Your task to perform on an android device: Search for the best rated phone case for the iPhone 8. Image 0: 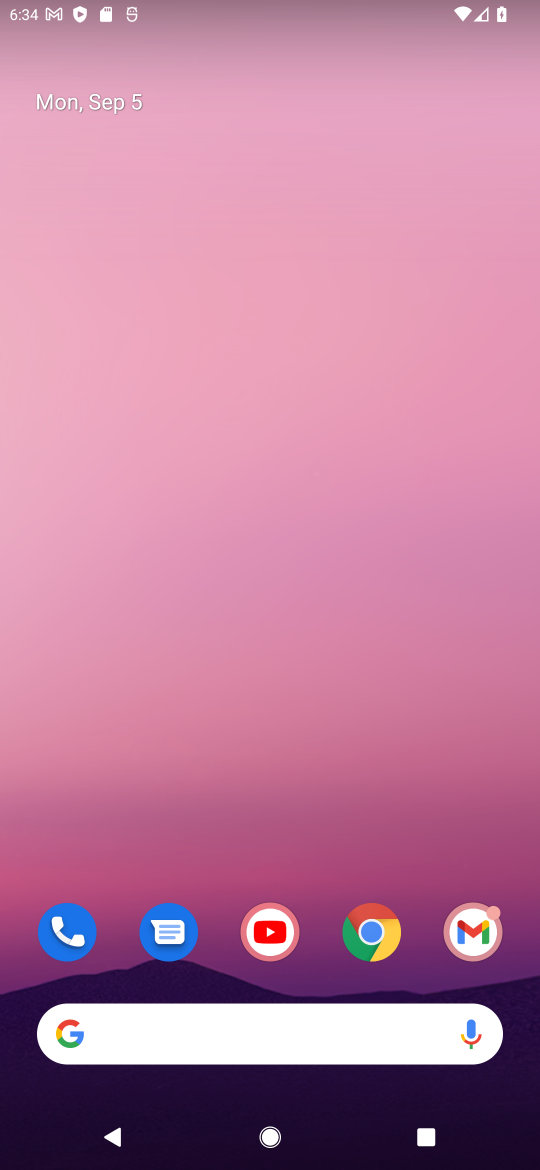
Step 0: drag from (223, 980) to (214, 171)
Your task to perform on an android device: Search for the best rated phone case for the iPhone 8. Image 1: 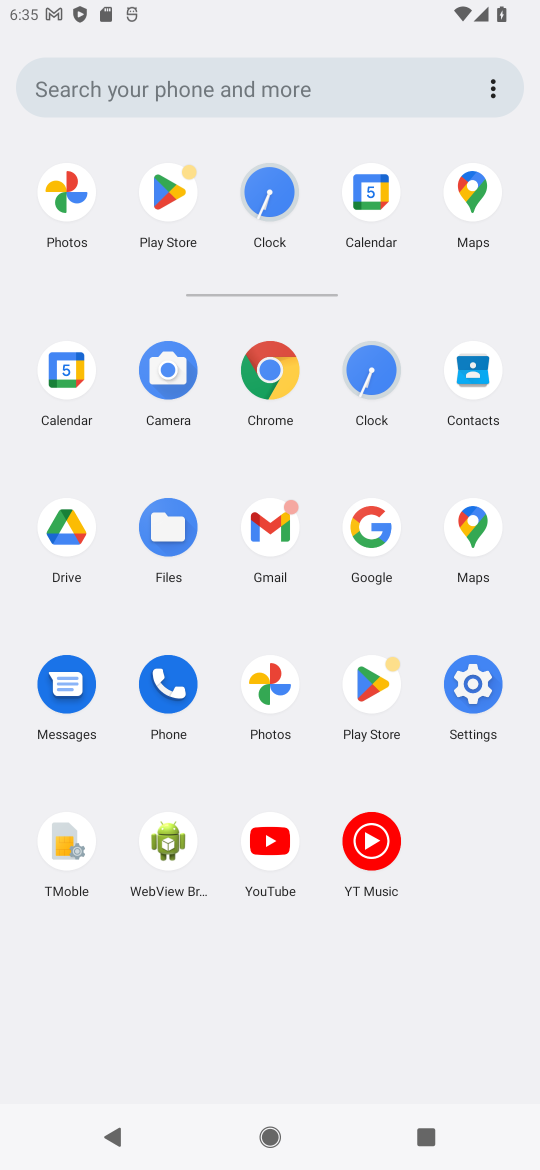
Step 1: click (271, 364)
Your task to perform on an android device: Search for the best rated phone case for the iPhone 8. Image 2: 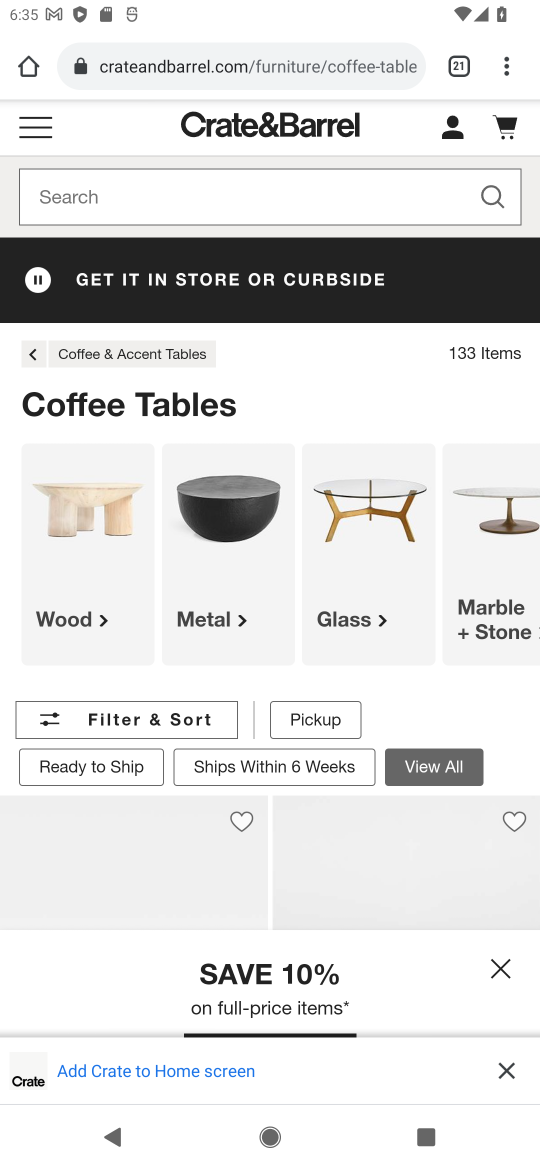
Step 2: drag from (503, 75) to (268, 206)
Your task to perform on an android device: Search for the best rated phone case for the iPhone 8. Image 3: 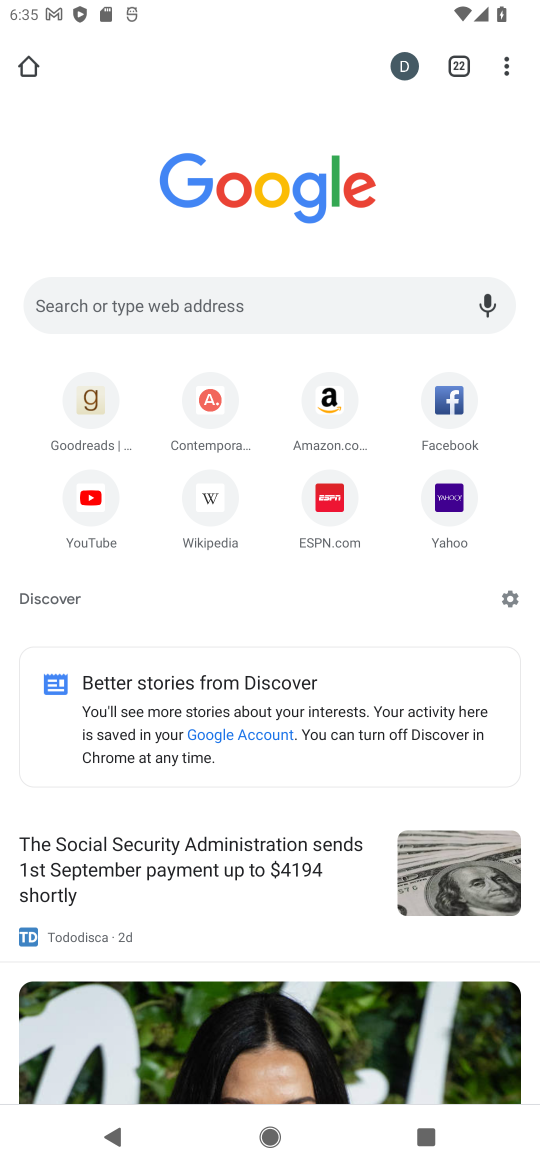
Step 3: click (228, 296)
Your task to perform on an android device: Search for the best rated phone case for the iPhone 8. Image 4: 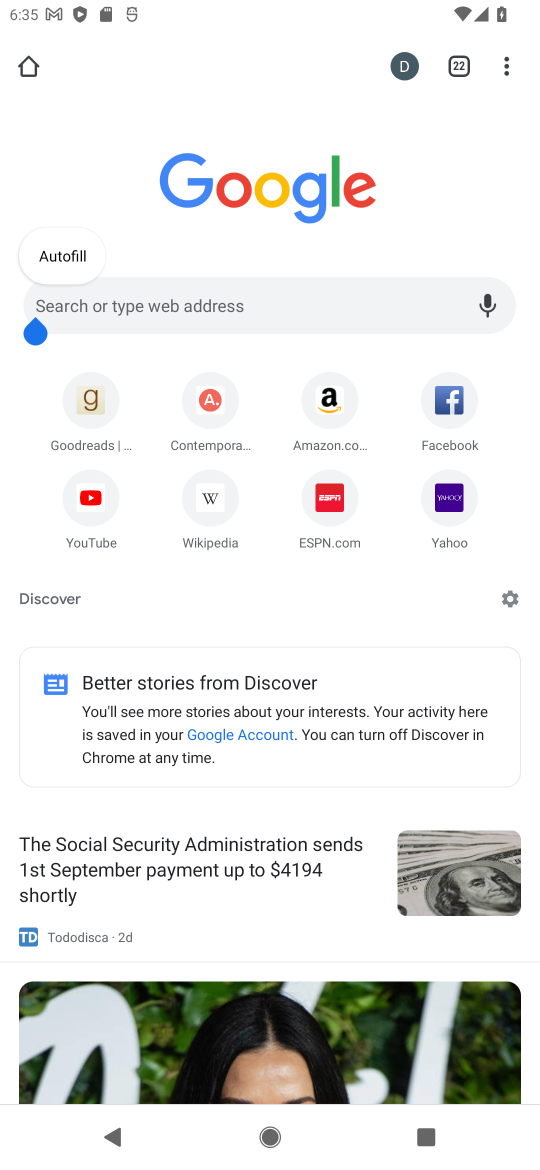
Step 4: click (229, 308)
Your task to perform on an android device: Search for the best rated phone case for the iPhone 8. Image 5: 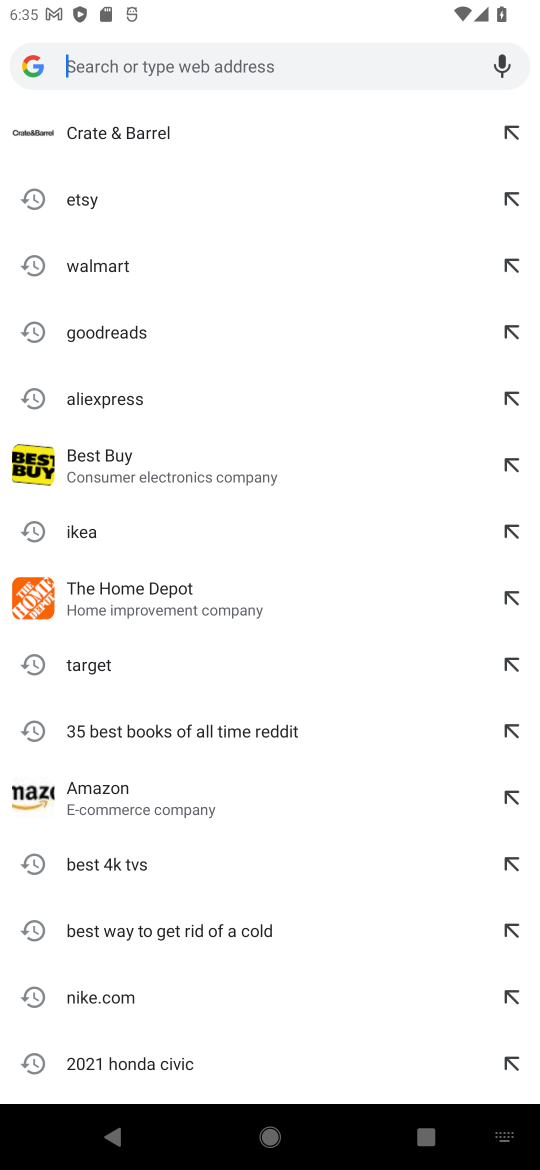
Step 5: type "best rated phone case for the iPhone 8"
Your task to perform on an android device: Search for the best rated phone case for the iPhone 8. Image 6: 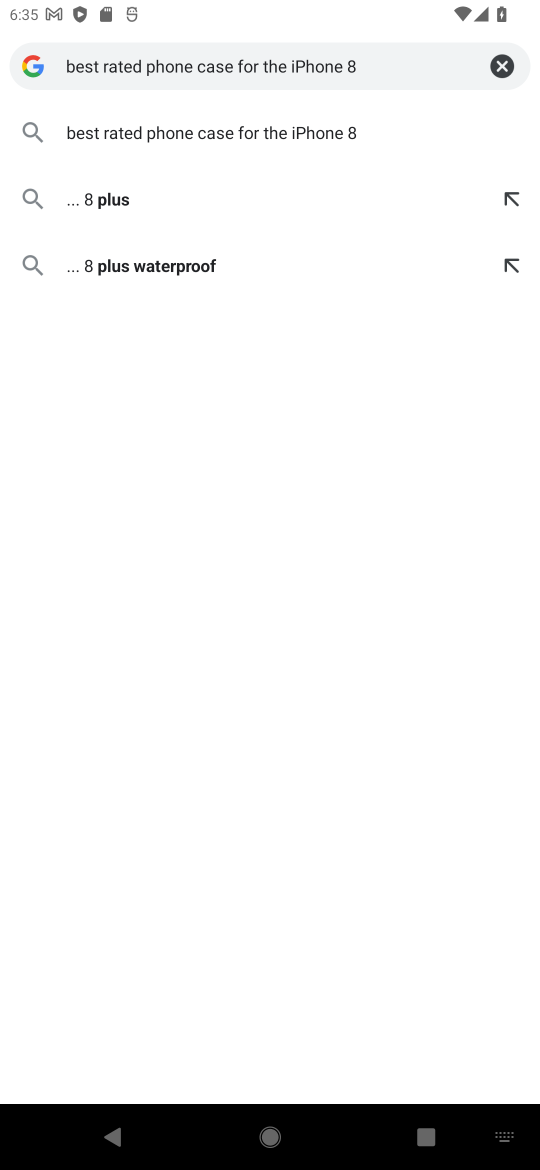
Step 6: click (192, 134)
Your task to perform on an android device: Search for the best rated phone case for the iPhone 8. Image 7: 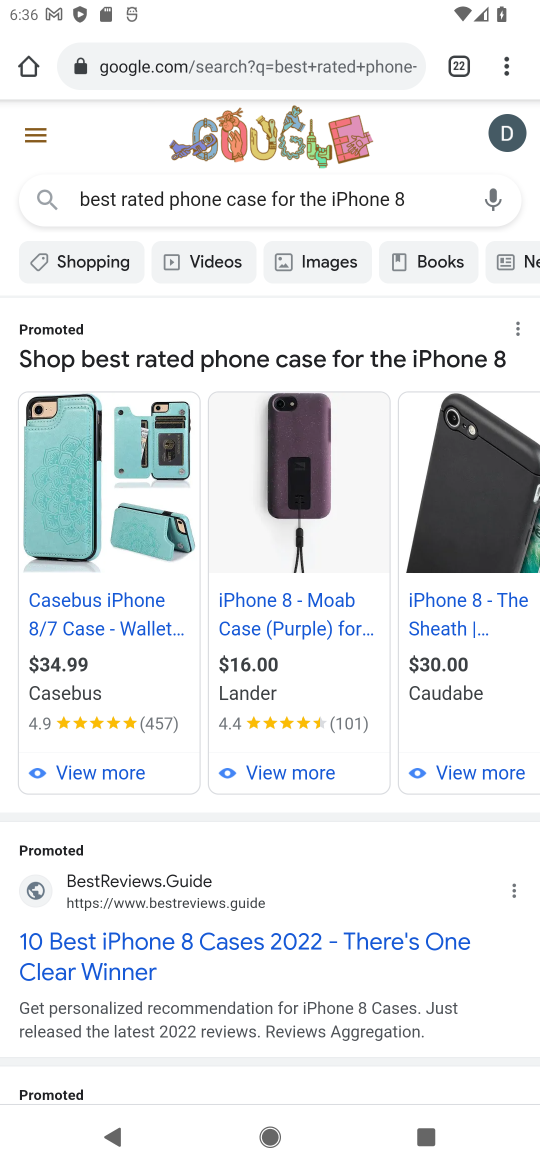
Step 7: task complete